Your task to perform on an android device: change timer sound Image 0: 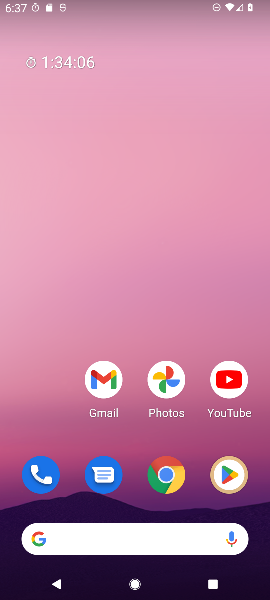
Step 0: press home button
Your task to perform on an android device: change timer sound Image 1: 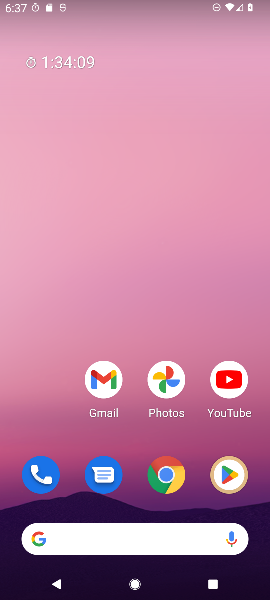
Step 1: drag from (64, 439) to (59, 132)
Your task to perform on an android device: change timer sound Image 2: 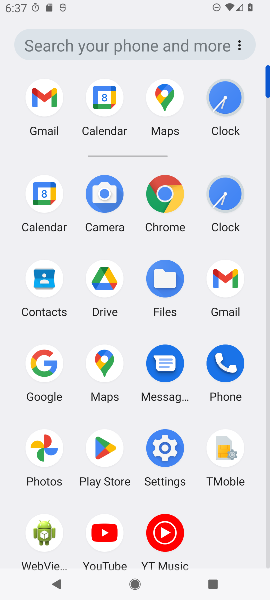
Step 2: click (228, 190)
Your task to perform on an android device: change timer sound Image 3: 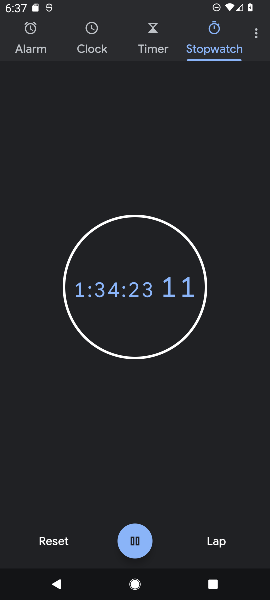
Step 3: click (257, 36)
Your task to perform on an android device: change timer sound Image 4: 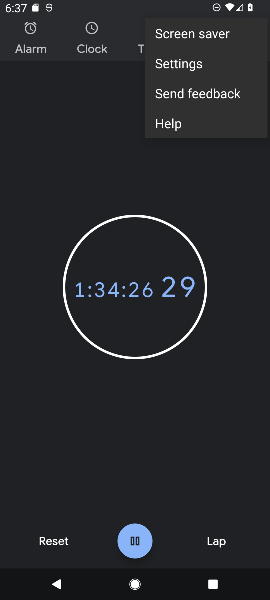
Step 4: click (228, 66)
Your task to perform on an android device: change timer sound Image 5: 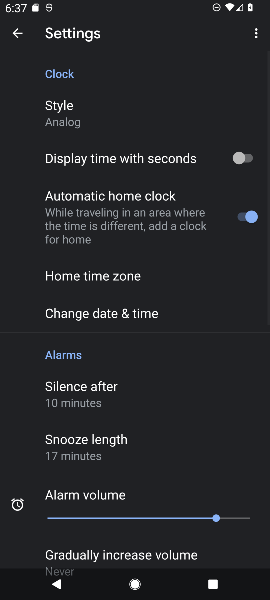
Step 5: drag from (204, 346) to (211, 263)
Your task to perform on an android device: change timer sound Image 6: 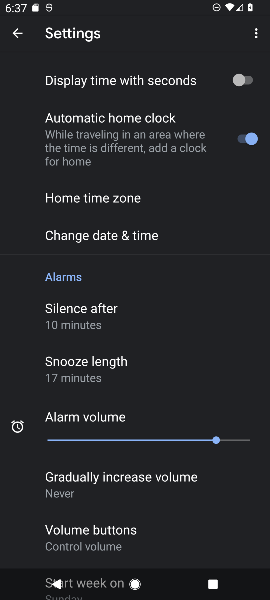
Step 6: drag from (208, 349) to (210, 267)
Your task to perform on an android device: change timer sound Image 7: 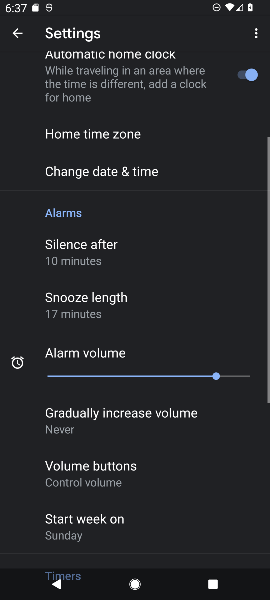
Step 7: drag from (219, 414) to (221, 296)
Your task to perform on an android device: change timer sound Image 8: 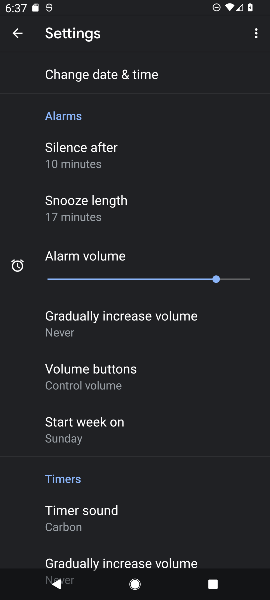
Step 8: drag from (229, 419) to (238, 327)
Your task to perform on an android device: change timer sound Image 9: 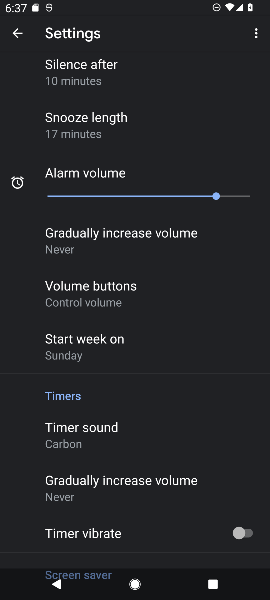
Step 9: drag from (225, 393) to (221, 319)
Your task to perform on an android device: change timer sound Image 10: 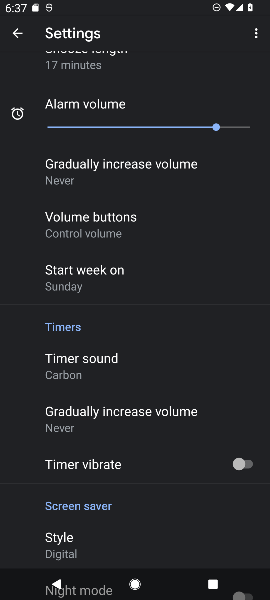
Step 10: drag from (213, 410) to (227, 315)
Your task to perform on an android device: change timer sound Image 11: 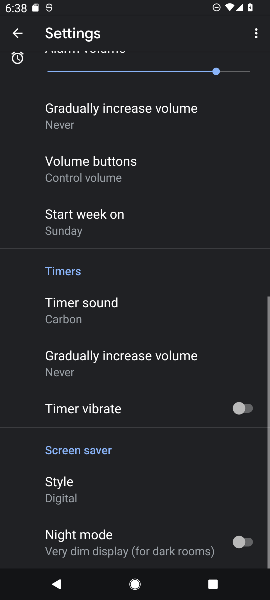
Step 11: drag from (193, 435) to (196, 364)
Your task to perform on an android device: change timer sound Image 12: 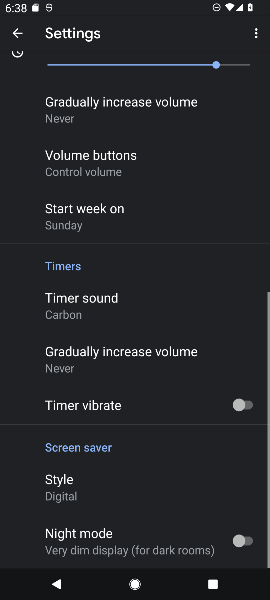
Step 12: drag from (207, 250) to (207, 305)
Your task to perform on an android device: change timer sound Image 13: 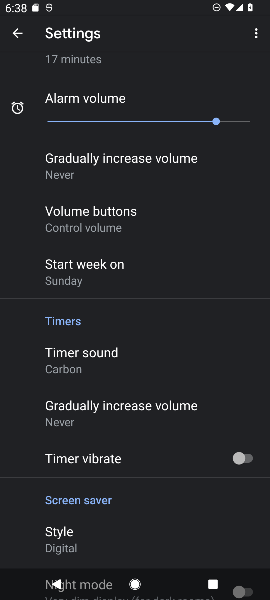
Step 13: click (146, 364)
Your task to perform on an android device: change timer sound Image 14: 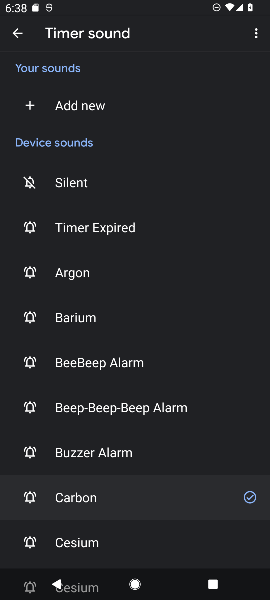
Step 14: click (186, 400)
Your task to perform on an android device: change timer sound Image 15: 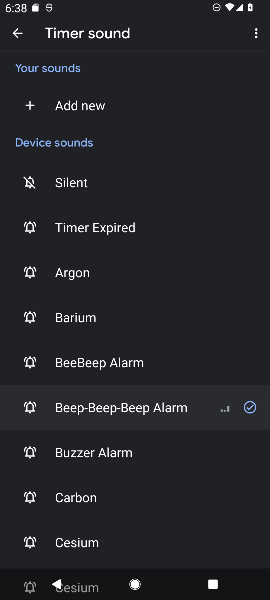
Step 15: task complete